Your task to perform on an android device: Show me recent news Image 0: 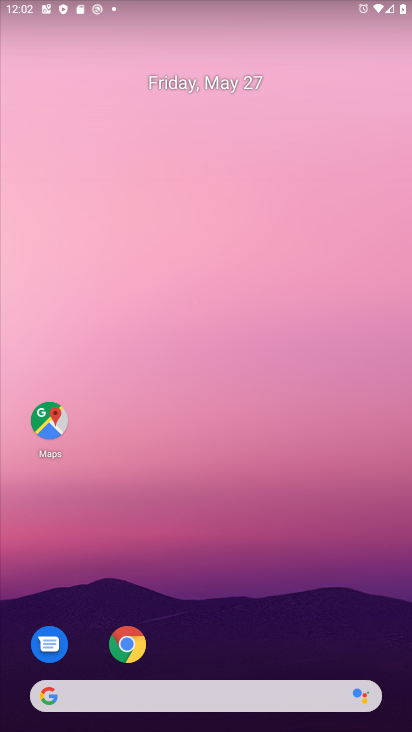
Step 0: drag from (196, 660) to (199, 262)
Your task to perform on an android device: Show me recent news Image 1: 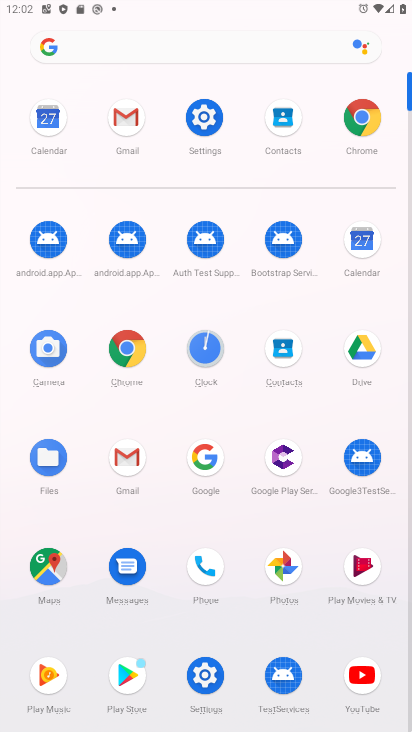
Step 1: click (215, 469)
Your task to perform on an android device: Show me recent news Image 2: 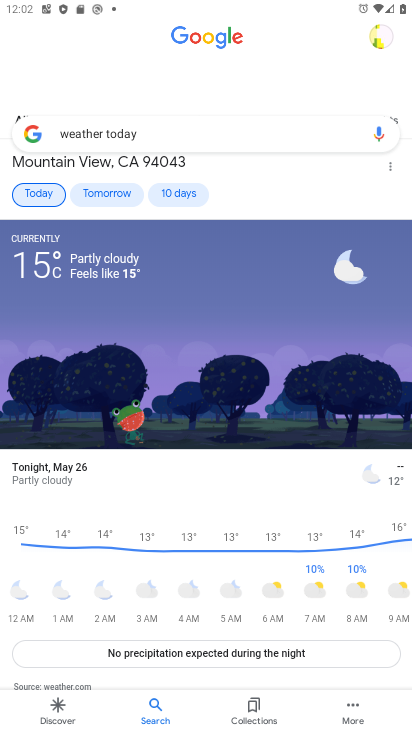
Step 2: click (183, 131)
Your task to perform on an android device: Show me recent news Image 3: 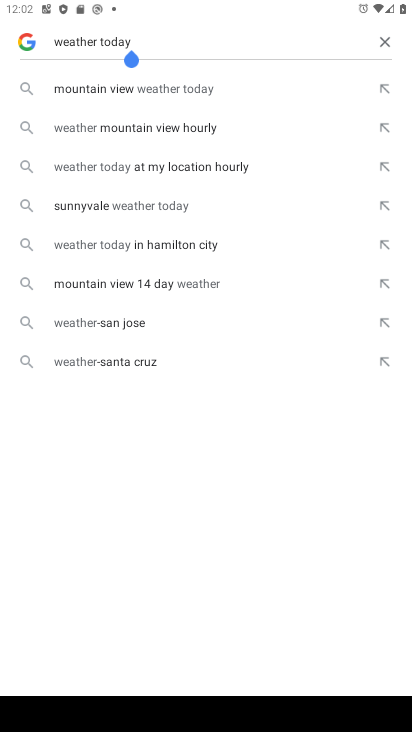
Step 3: click (364, 34)
Your task to perform on an android device: Show me recent news Image 4: 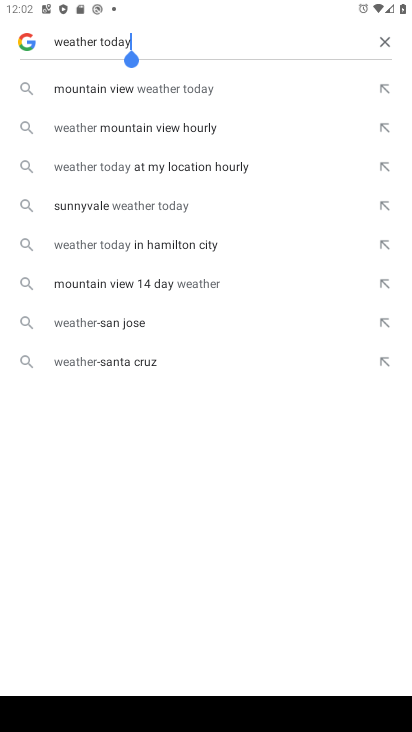
Step 4: click (386, 44)
Your task to perform on an android device: Show me recent news Image 5: 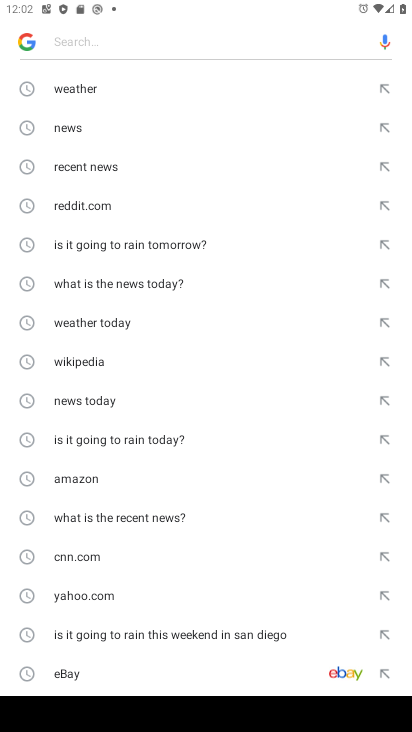
Step 5: click (103, 125)
Your task to perform on an android device: Show me recent news Image 6: 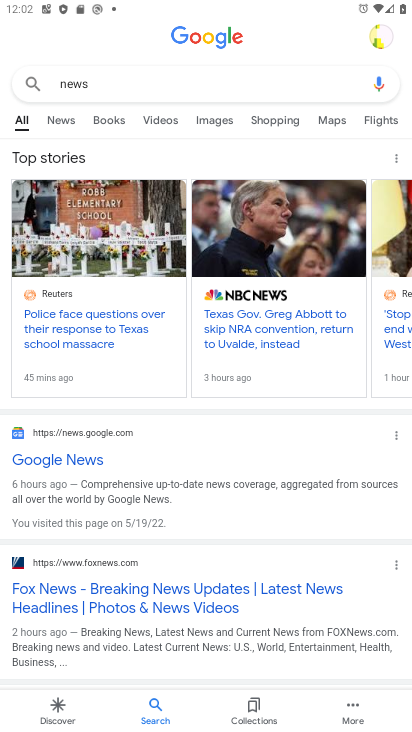
Step 6: click (62, 121)
Your task to perform on an android device: Show me recent news Image 7: 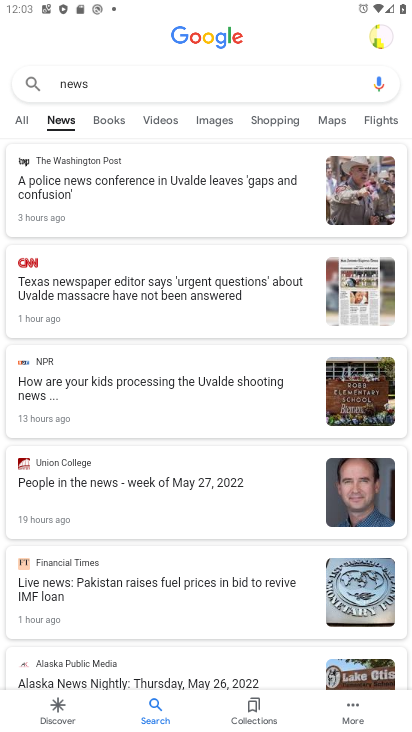
Step 7: task complete